Your task to perform on an android device: add a label to a message in the gmail app Image 0: 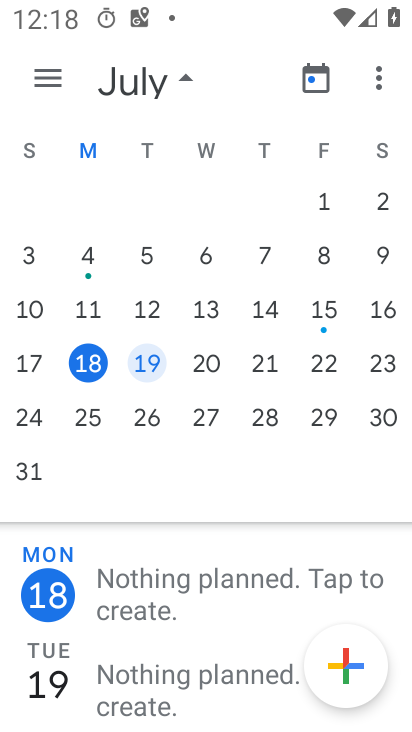
Step 0: press home button
Your task to perform on an android device: add a label to a message in the gmail app Image 1: 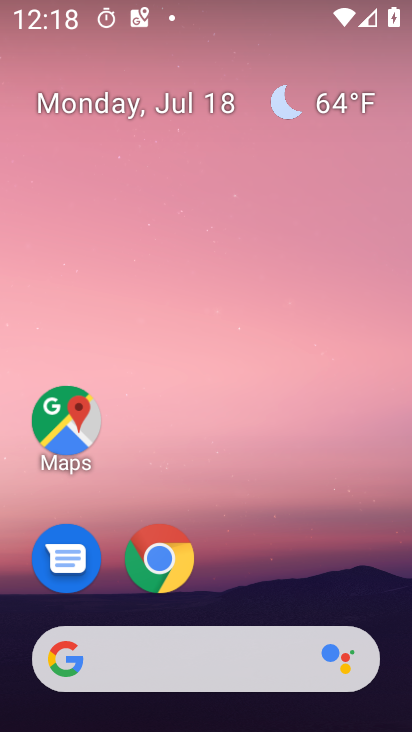
Step 1: drag from (338, 576) to (354, 187)
Your task to perform on an android device: add a label to a message in the gmail app Image 2: 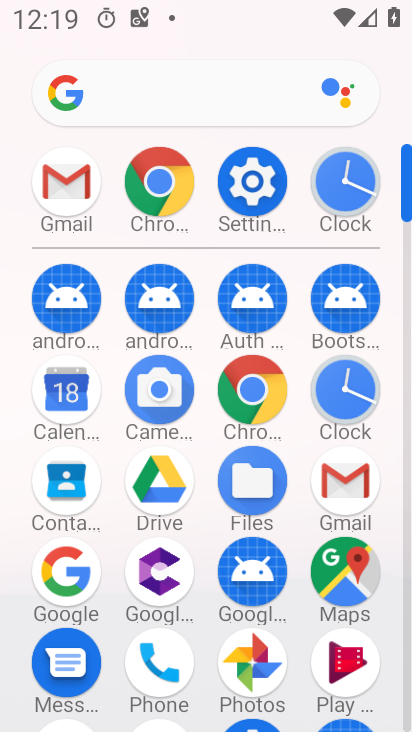
Step 2: click (353, 472)
Your task to perform on an android device: add a label to a message in the gmail app Image 3: 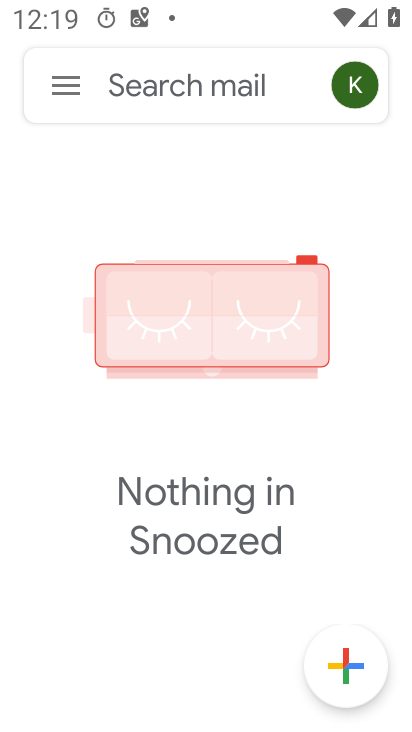
Step 3: click (68, 79)
Your task to perform on an android device: add a label to a message in the gmail app Image 4: 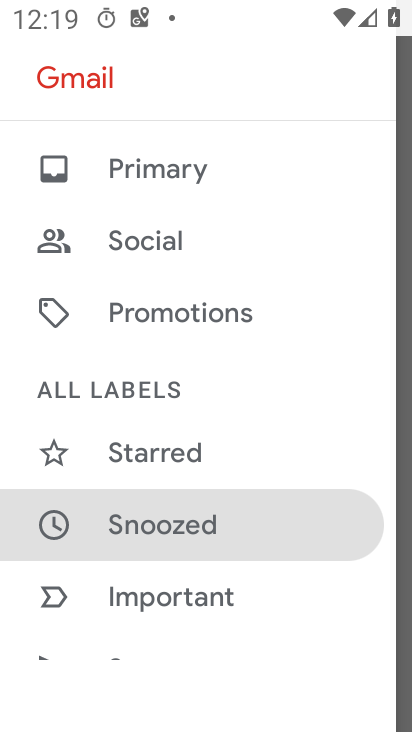
Step 4: click (224, 168)
Your task to perform on an android device: add a label to a message in the gmail app Image 5: 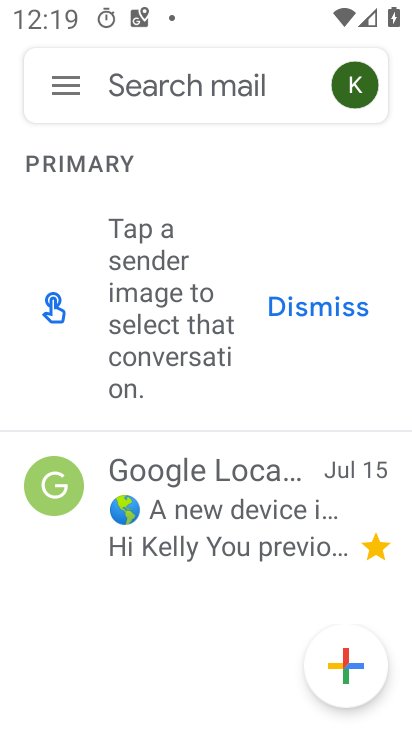
Step 5: click (258, 515)
Your task to perform on an android device: add a label to a message in the gmail app Image 6: 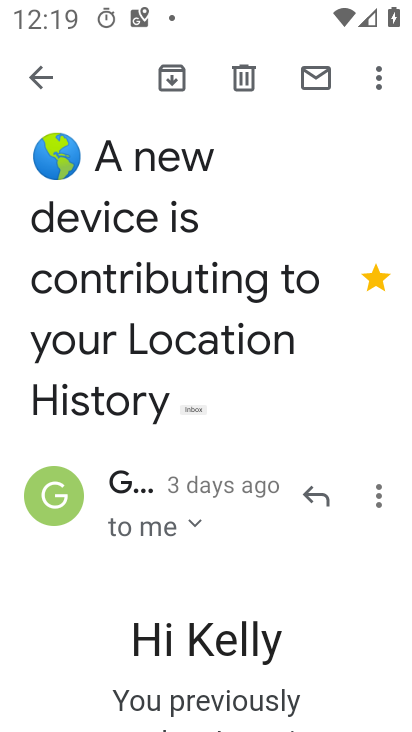
Step 6: click (197, 410)
Your task to perform on an android device: add a label to a message in the gmail app Image 7: 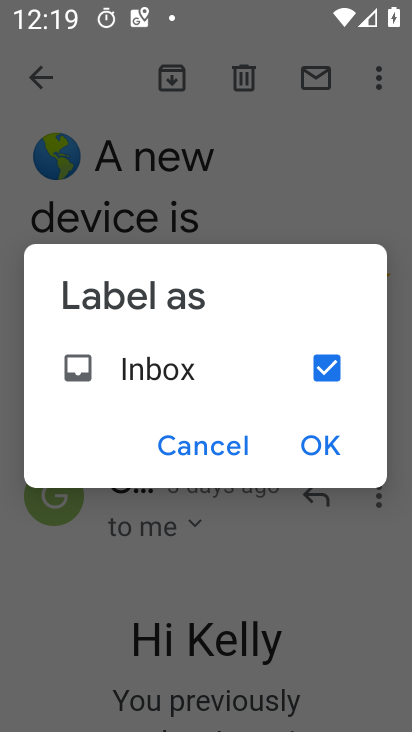
Step 7: click (321, 362)
Your task to perform on an android device: add a label to a message in the gmail app Image 8: 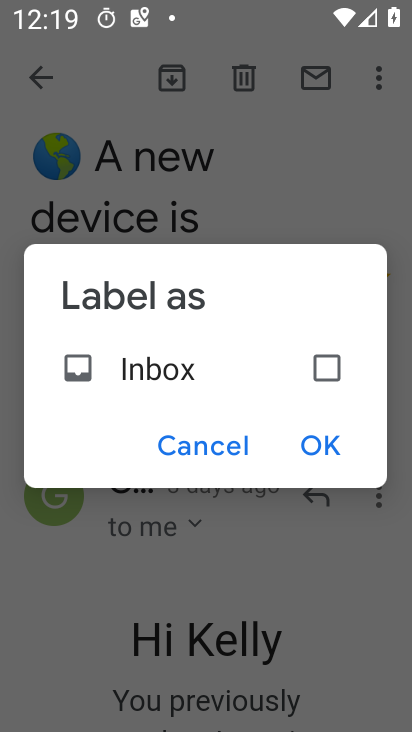
Step 8: click (317, 443)
Your task to perform on an android device: add a label to a message in the gmail app Image 9: 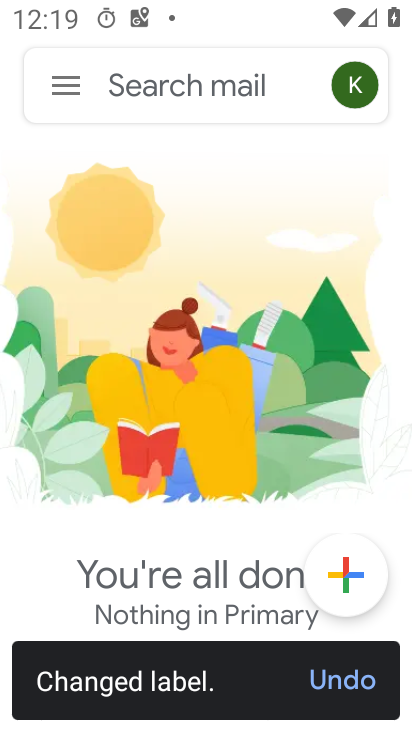
Step 9: task complete